Your task to perform on an android device: Is it going to rain today? Image 0: 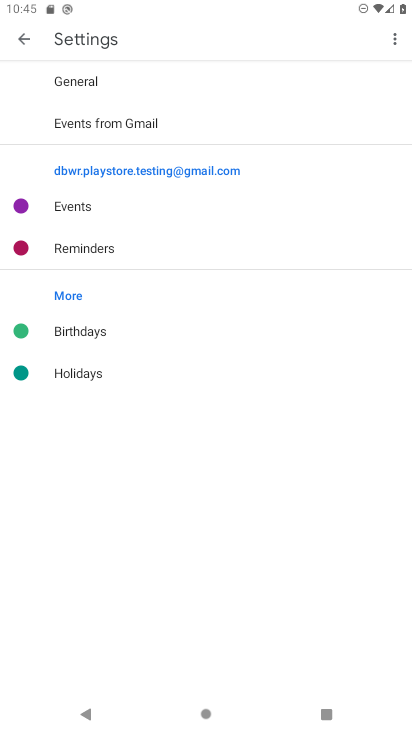
Step 0: press home button
Your task to perform on an android device: Is it going to rain today? Image 1: 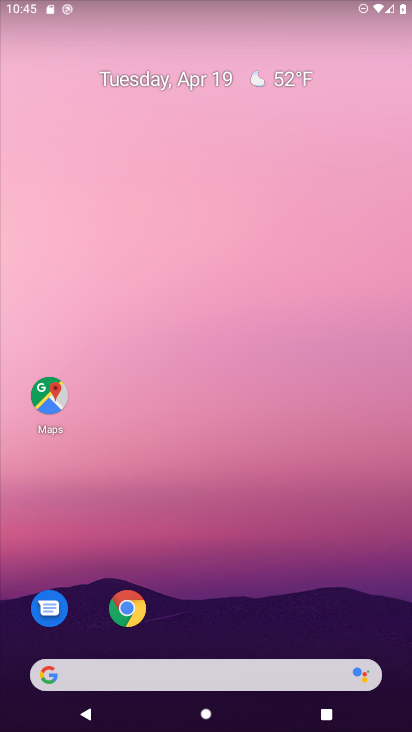
Step 1: drag from (14, 284) to (408, 154)
Your task to perform on an android device: Is it going to rain today? Image 2: 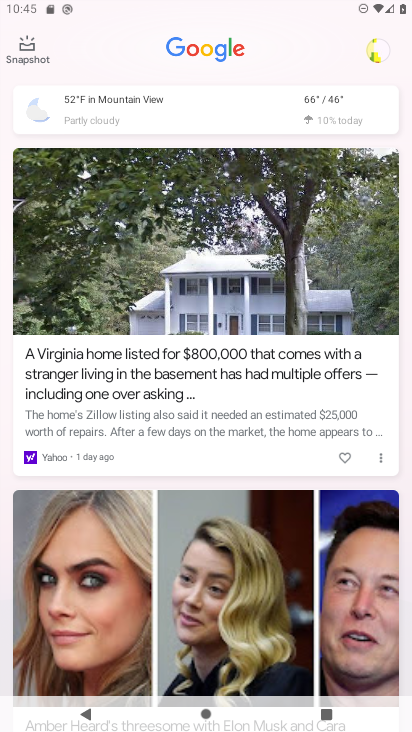
Step 2: click (294, 119)
Your task to perform on an android device: Is it going to rain today? Image 3: 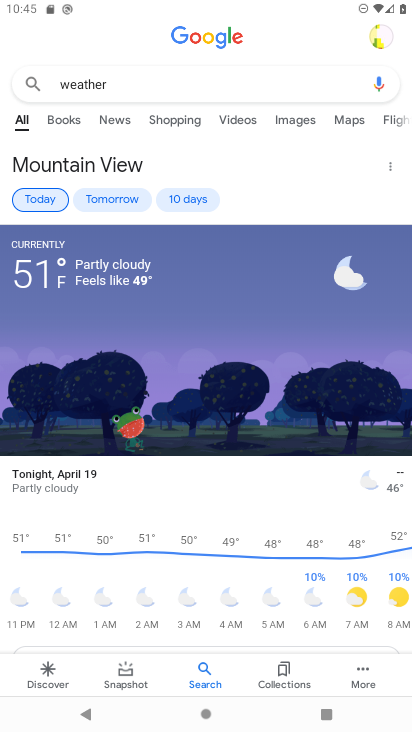
Step 3: task complete